Your task to perform on an android device: see creations saved in the google photos Image 0: 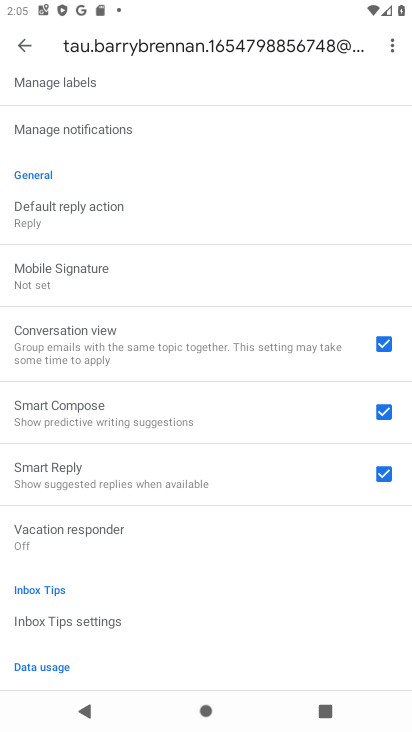
Step 0: press home button
Your task to perform on an android device: see creations saved in the google photos Image 1: 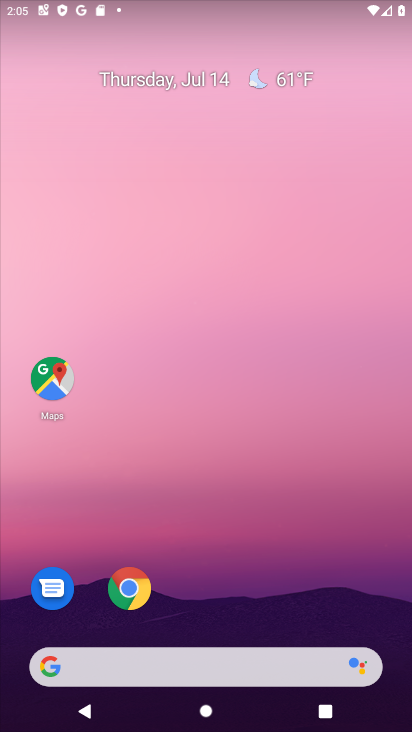
Step 1: drag from (240, 618) to (276, 129)
Your task to perform on an android device: see creations saved in the google photos Image 2: 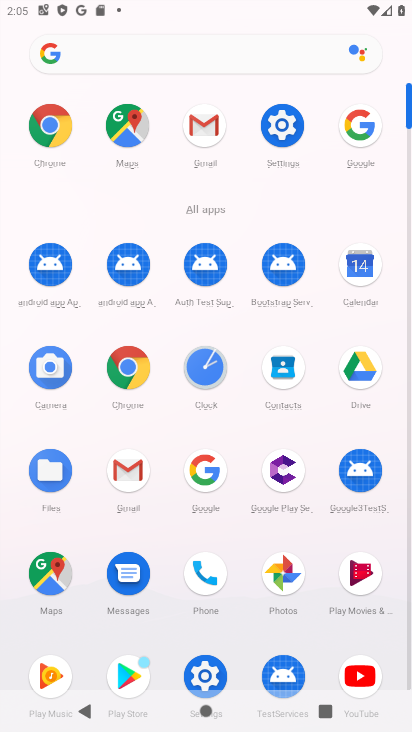
Step 2: click (281, 578)
Your task to perform on an android device: see creations saved in the google photos Image 3: 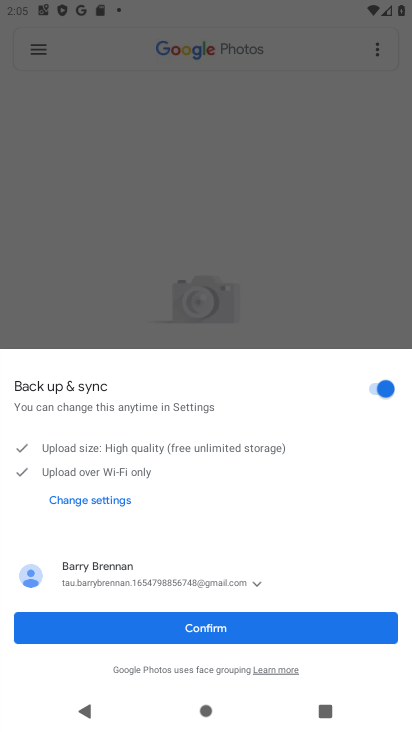
Step 3: click (206, 627)
Your task to perform on an android device: see creations saved in the google photos Image 4: 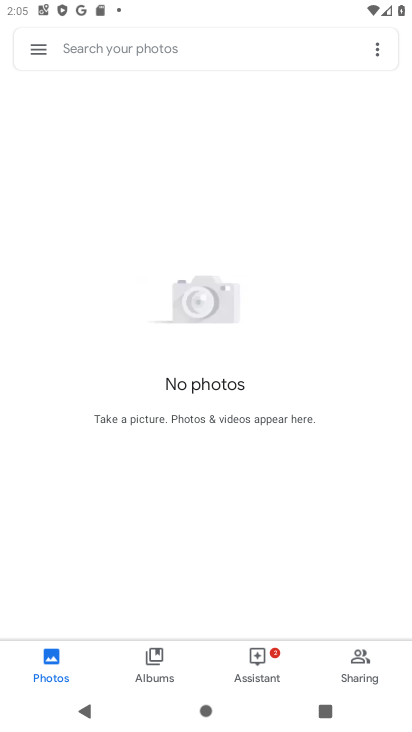
Step 4: click (166, 52)
Your task to perform on an android device: see creations saved in the google photos Image 5: 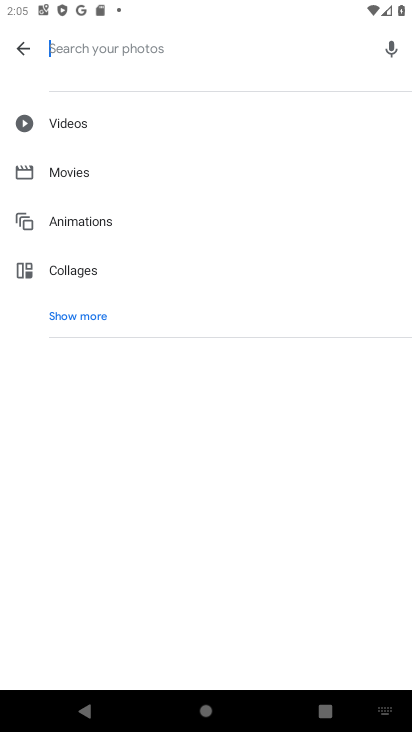
Step 5: click (89, 310)
Your task to perform on an android device: see creations saved in the google photos Image 6: 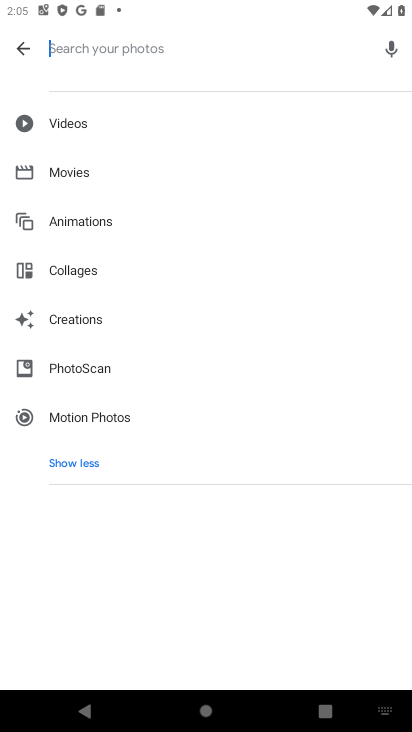
Step 6: click (64, 315)
Your task to perform on an android device: see creations saved in the google photos Image 7: 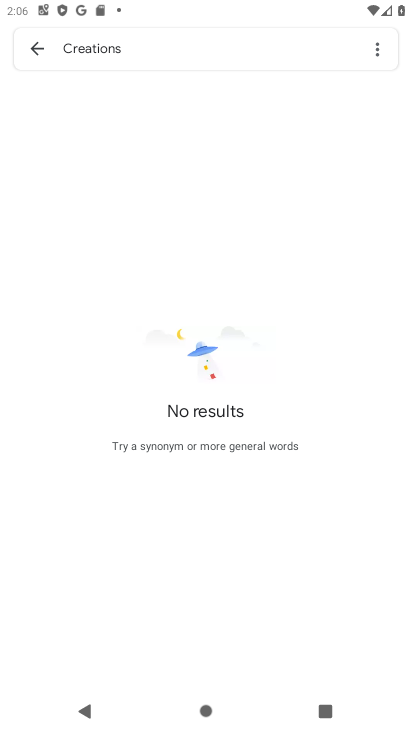
Step 7: task complete